Your task to perform on an android device: Open notification settings Image 0: 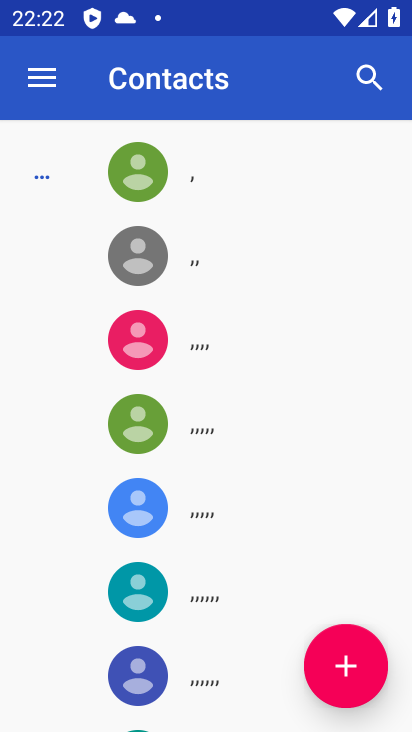
Step 0: press home button
Your task to perform on an android device: Open notification settings Image 1: 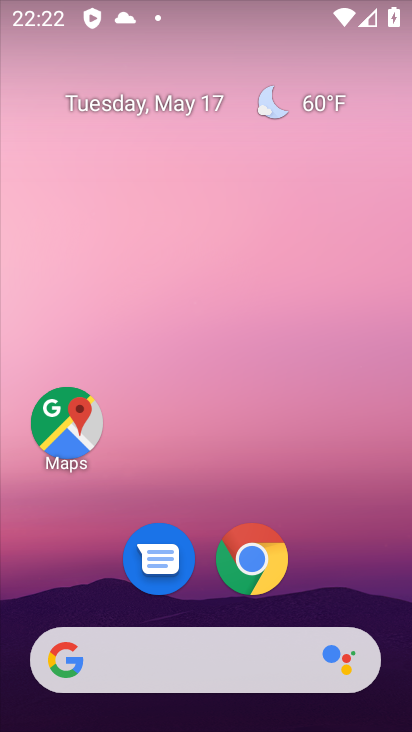
Step 1: drag from (361, 582) to (295, 166)
Your task to perform on an android device: Open notification settings Image 2: 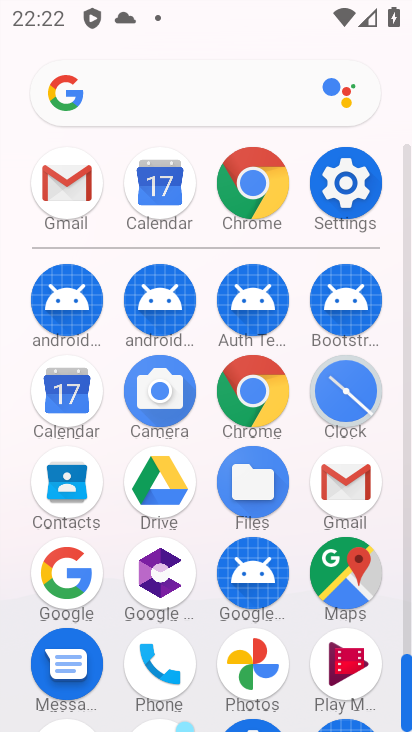
Step 2: click (364, 177)
Your task to perform on an android device: Open notification settings Image 3: 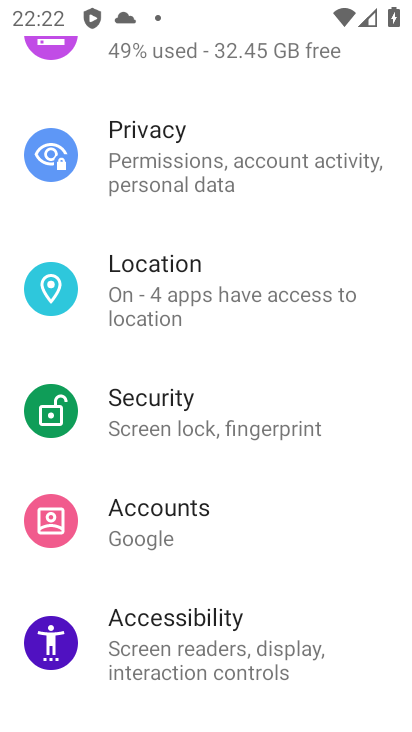
Step 3: drag from (251, 165) to (201, 605)
Your task to perform on an android device: Open notification settings Image 4: 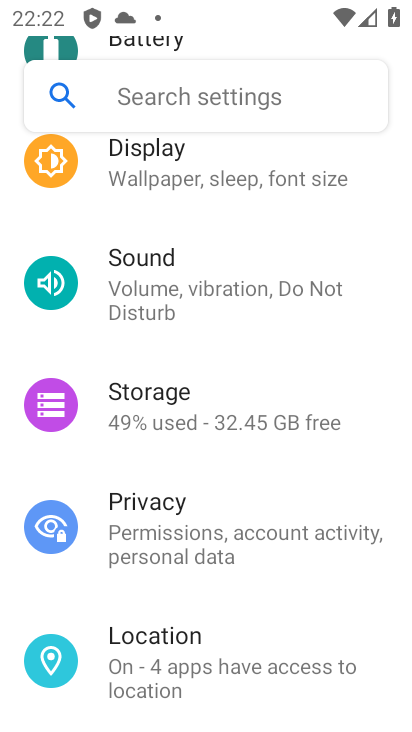
Step 4: drag from (213, 190) to (194, 723)
Your task to perform on an android device: Open notification settings Image 5: 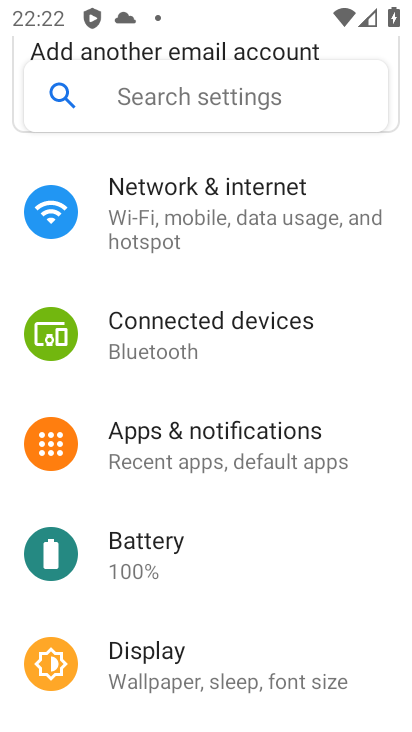
Step 5: drag from (211, 355) to (223, 706)
Your task to perform on an android device: Open notification settings Image 6: 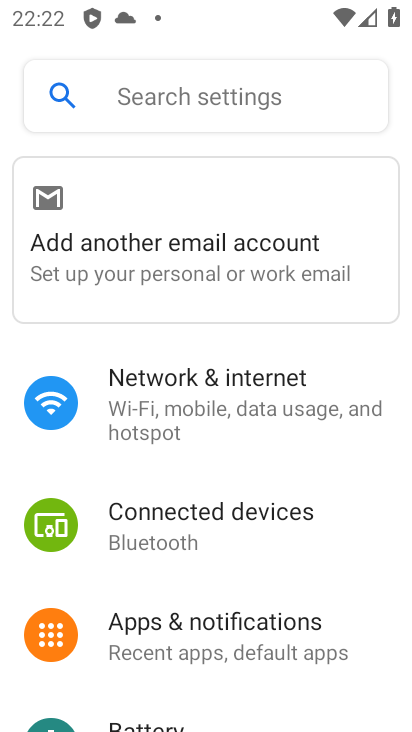
Step 6: click (213, 639)
Your task to perform on an android device: Open notification settings Image 7: 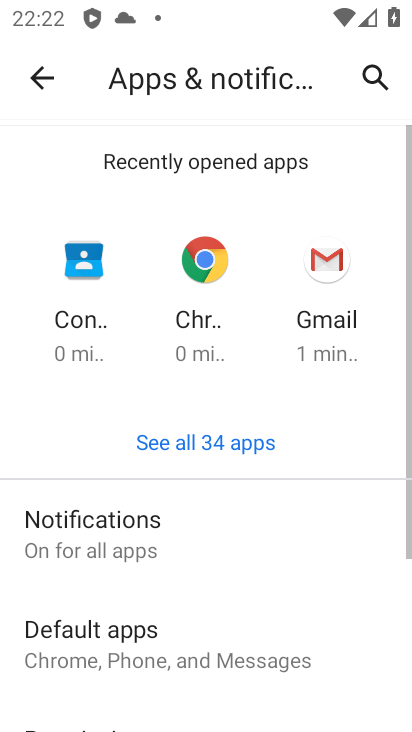
Step 7: click (102, 522)
Your task to perform on an android device: Open notification settings Image 8: 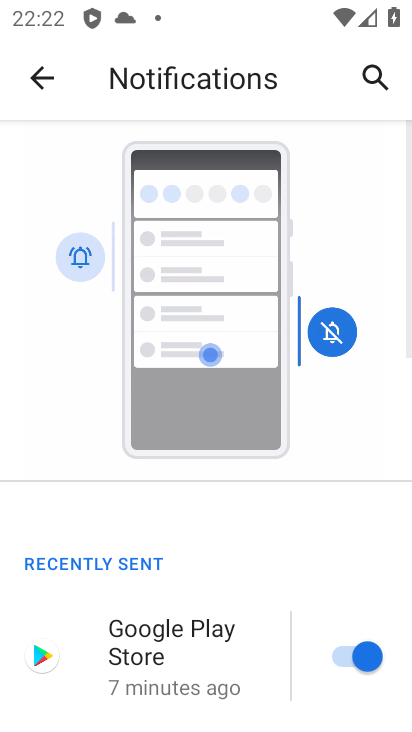
Step 8: task complete